Your task to perform on an android device: allow cookies in the chrome app Image 0: 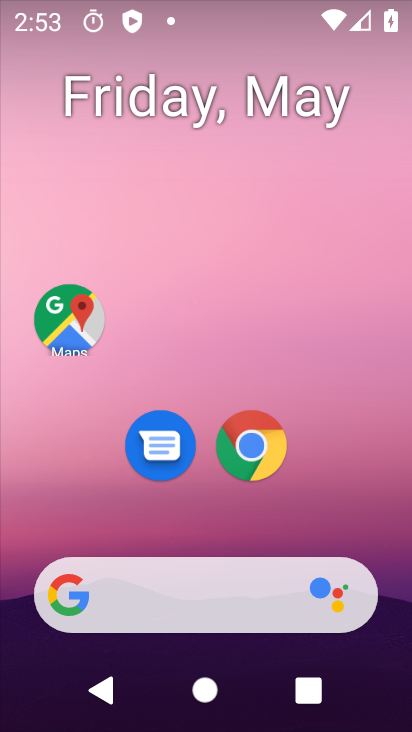
Step 0: drag from (205, 533) to (239, 238)
Your task to perform on an android device: allow cookies in the chrome app Image 1: 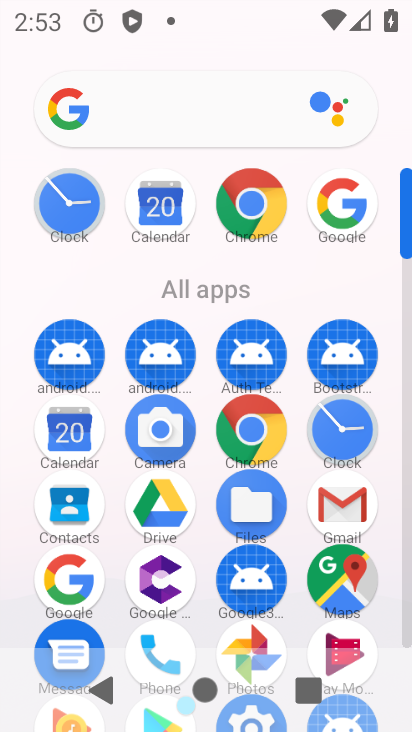
Step 1: click (277, 195)
Your task to perform on an android device: allow cookies in the chrome app Image 2: 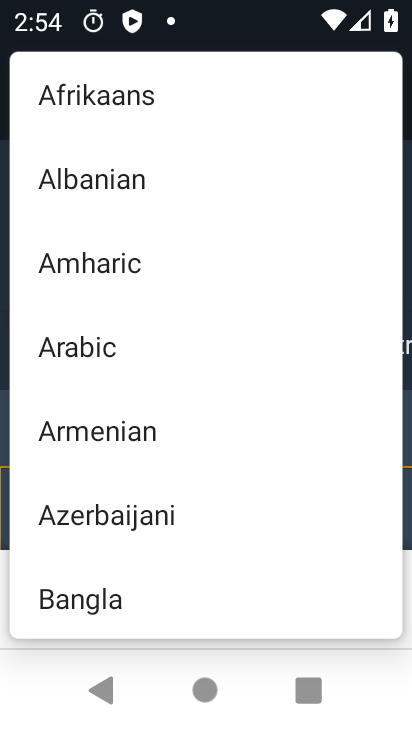
Step 2: press back button
Your task to perform on an android device: allow cookies in the chrome app Image 3: 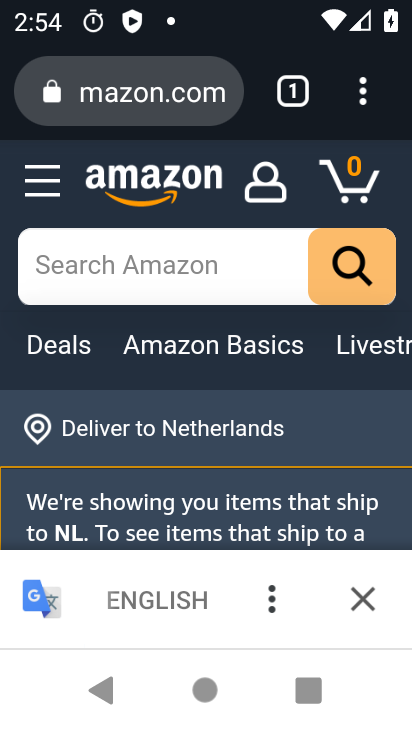
Step 3: click (371, 101)
Your task to perform on an android device: allow cookies in the chrome app Image 4: 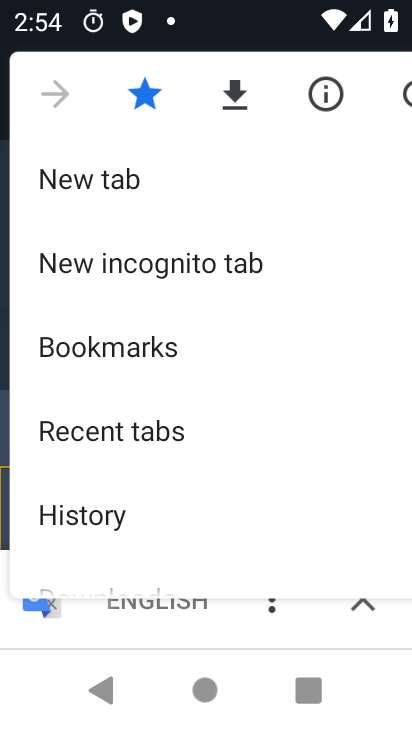
Step 4: drag from (211, 501) to (242, 283)
Your task to perform on an android device: allow cookies in the chrome app Image 5: 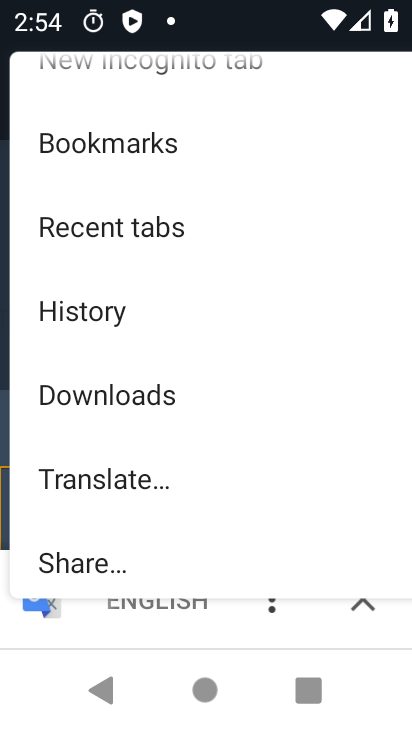
Step 5: drag from (174, 472) to (187, 269)
Your task to perform on an android device: allow cookies in the chrome app Image 6: 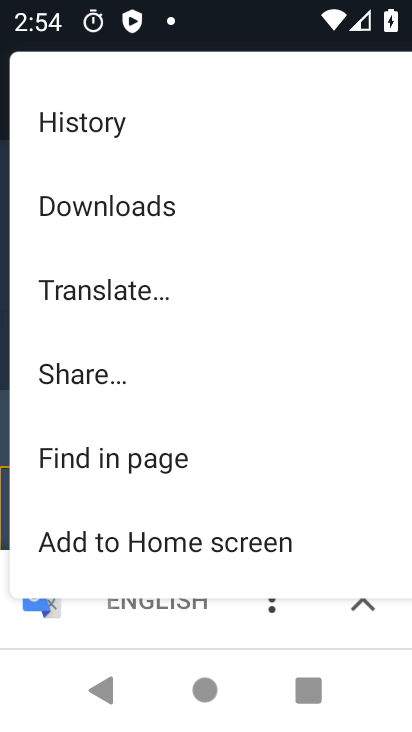
Step 6: drag from (140, 468) to (183, 236)
Your task to perform on an android device: allow cookies in the chrome app Image 7: 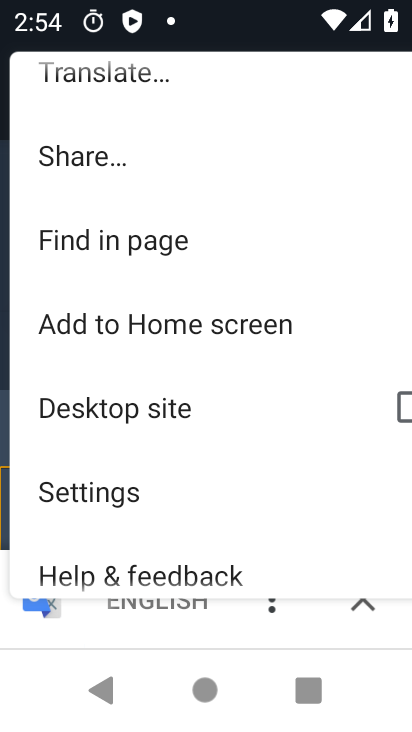
Step 7: drag from (139, 409) to (144, 227)
Your task to perform on an android device: allow cookies in the chrome app Image 8: 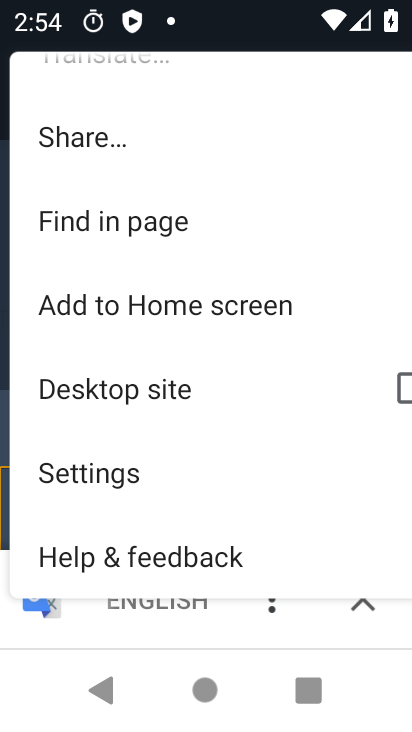
Step 8: click (101, 470)
Your task to perform on an android device: allow cookies in the chrome app Image 9: 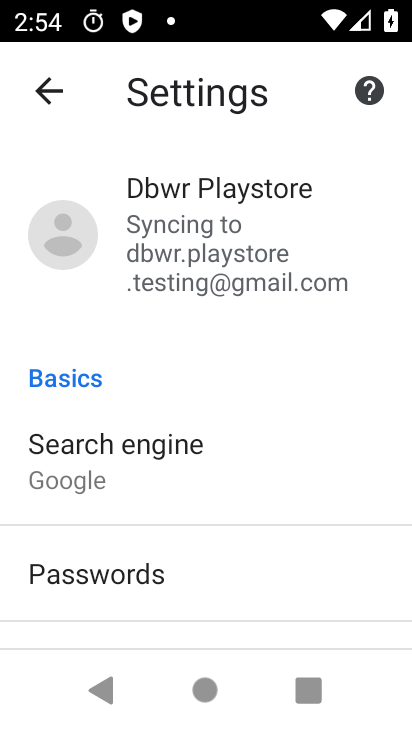
Step 9: drag from (102, 551) to (122, 325)
Your task to perform on an android device: allow cookies in the chrome app Image 10: 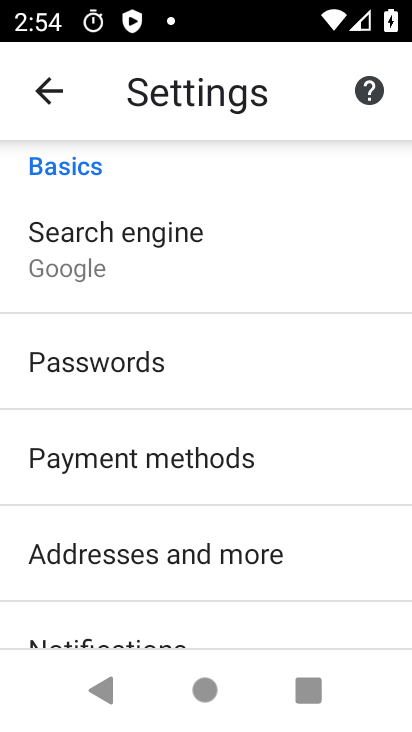
Step 10: drag from (88, 574) to (110, 455)
Your task to perform on an android device: allow cookies in the chrome app Image 11: 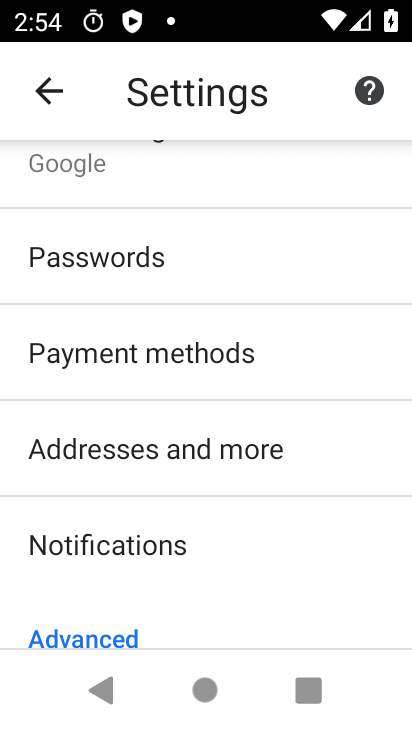
Step 11: drag from (131, 560) to (149, 265)
Your task to perform on an android device: allow cookies in the chrome app Image 12: 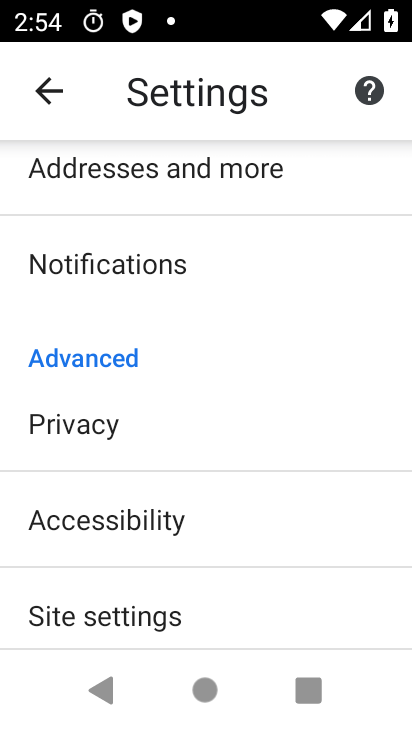
Step 12: drag from (180, 556) to (191, 391)
Your task to perform on an android device: allow cookies in the chrome app Image 13: 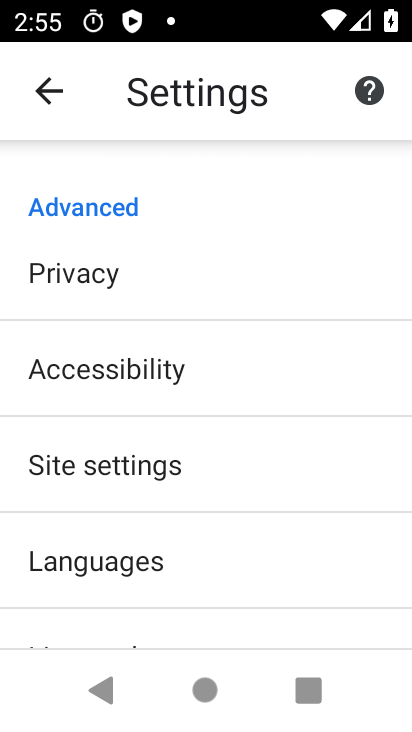
Step 13: drag from (186, 508) to (187, 449)
Your task to perform on an android device: allow cookies in the chrome app Image 14: 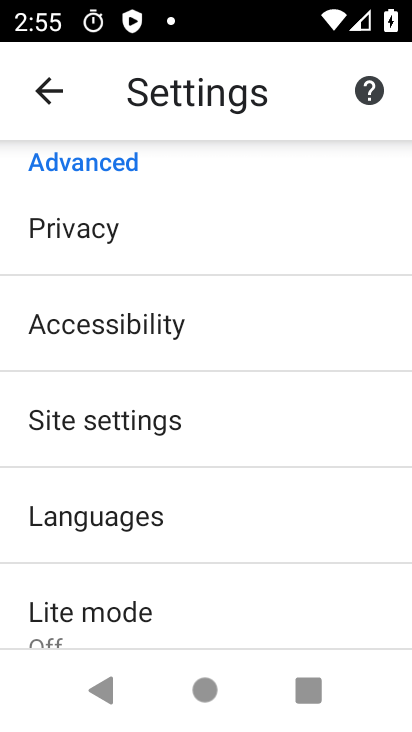
Step 14: click (203, 425)
Your task to perform on an android device: allow cookies in the chrome app Image 15: 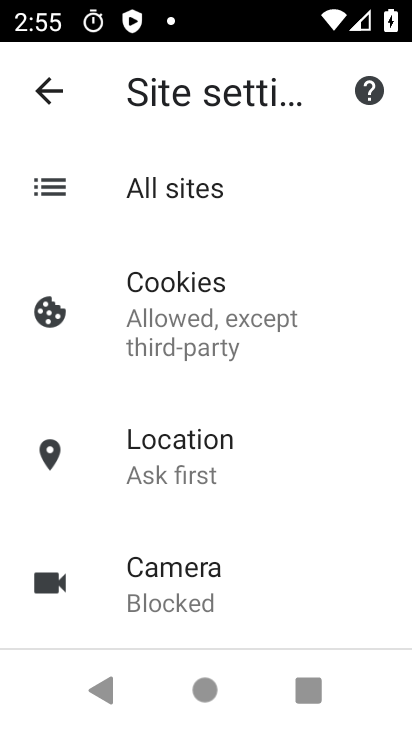
Step 15: click (189, 352)
Your task to perform on an android device: allow cookies in the chrome app Image 16: 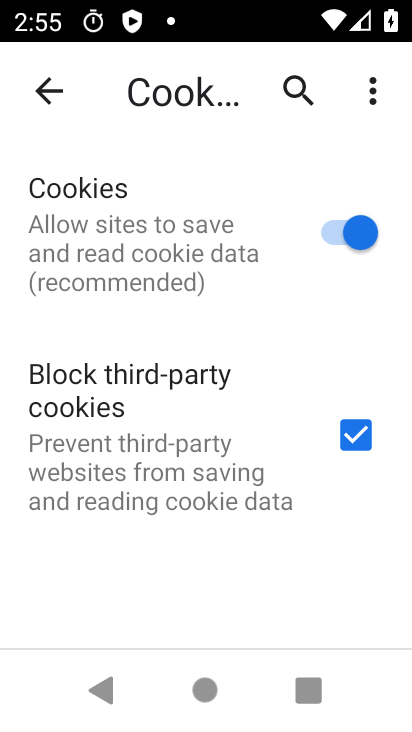
Step 16: task complete